Your task to perform on an android device: clear history in the chrome app Image 0: 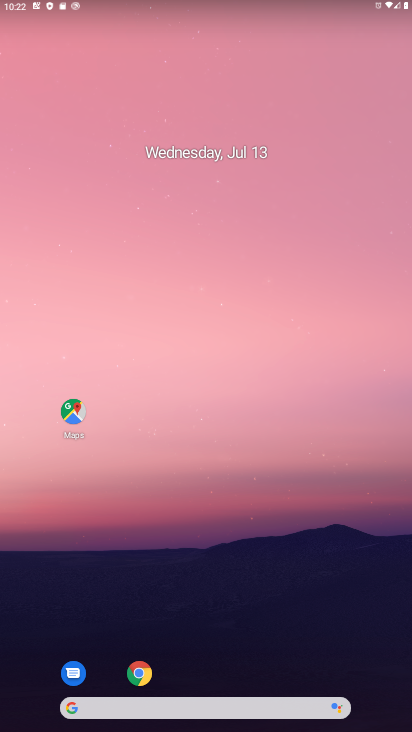
Step 0: click (144, 675)
Your task to perform on an android device: clear history in the chrome app Image 1: 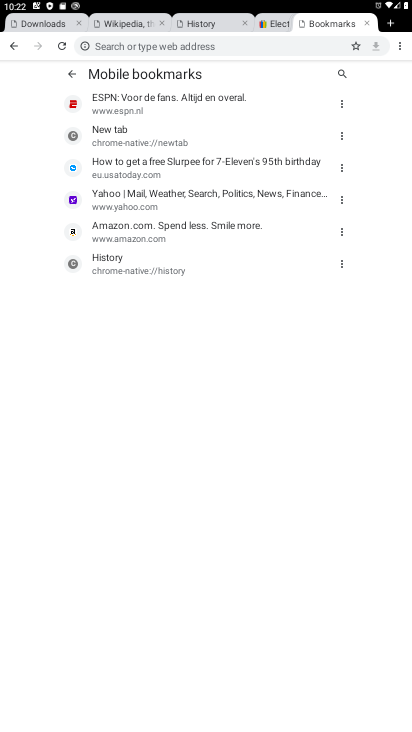
Step 1: click (404, 47)
Your task to perform on an android device: clear history in the chrome app Image 2: 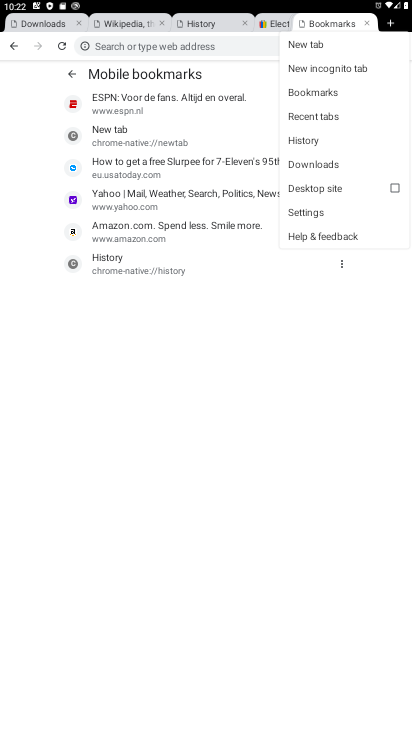
Step 2: click (322, 146)
Your task to perform on an android device: clear history in the chrome app Image 3: 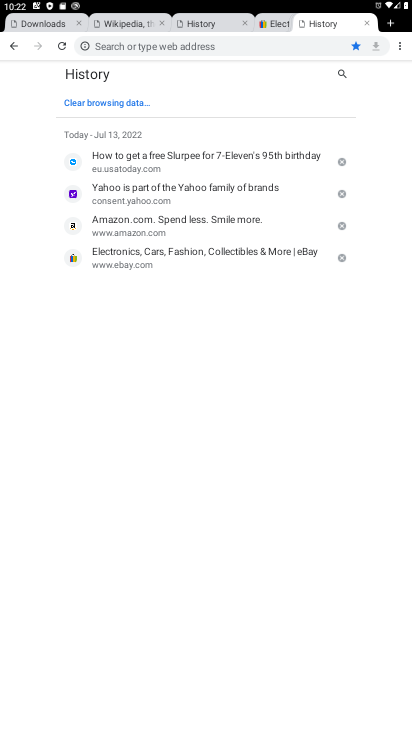
Step 3: click (138, 97)
Your task to perform on an android device: clear history in the chrome app Image 4: 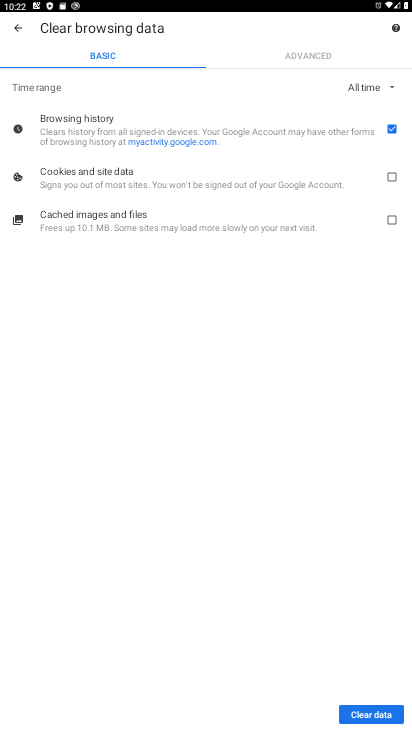
Step 4: click (380, 706)
Your task to perform on an android device: clear history in the chrome app Image 5: 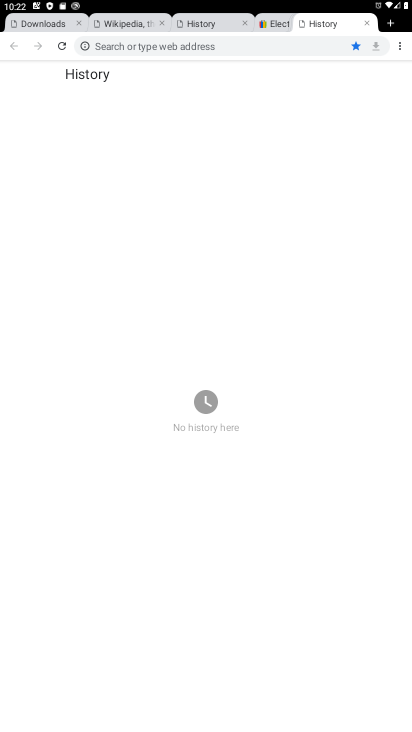
Step 5: task complete